Your task to perform on an android device: Go to battery settings Image 0: 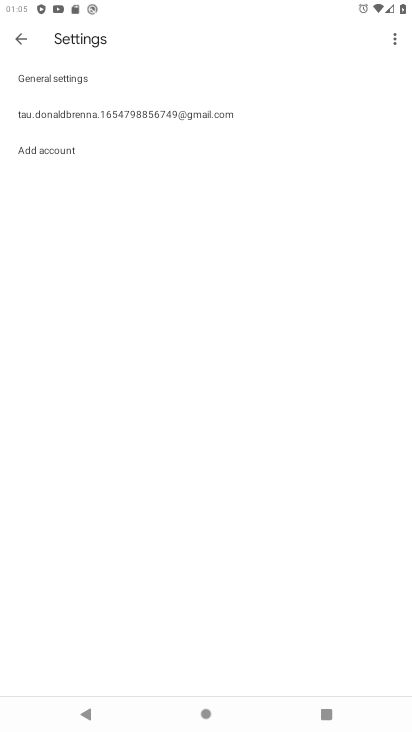
Step 0: press home button
Your task to perform on an android device: Go to battery settings Image 1: 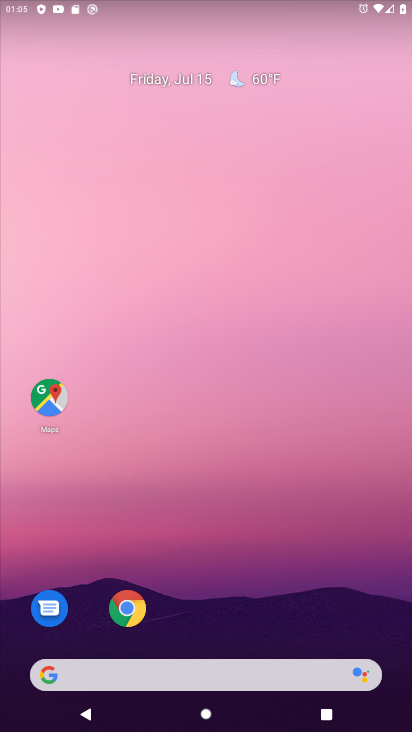
Step 1: drag from (378, 623) to (349, 65)
Your task to perform on an android device: Go to battery settings Image 2: 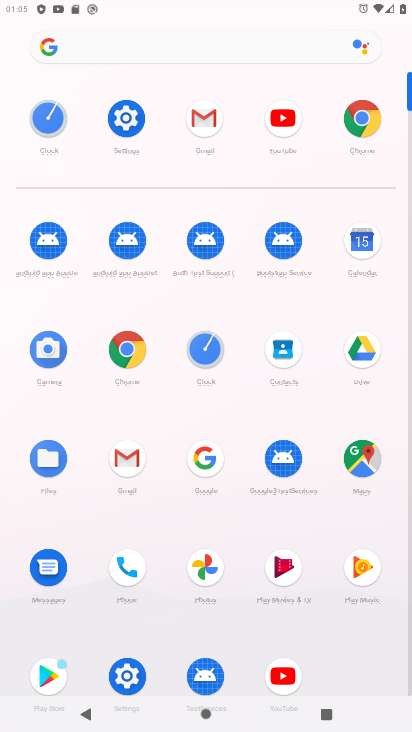
Step 2: click (130, 661)
Your task to perform on an android device: Go to battery settings Image 3: 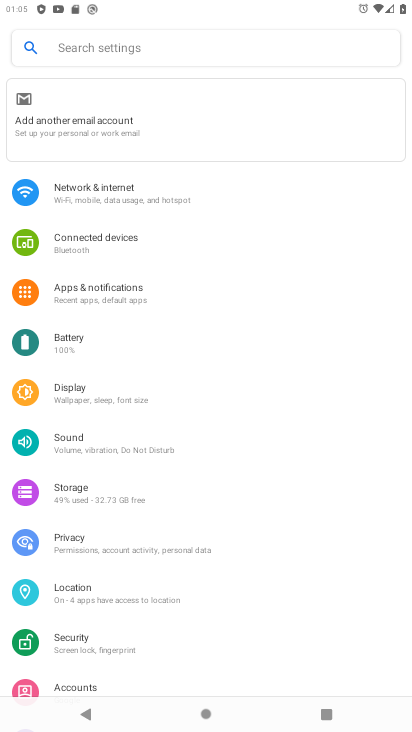
Step 3: click (94, 336)
Your task to perform on an android device: Go to battery settings Image 4: 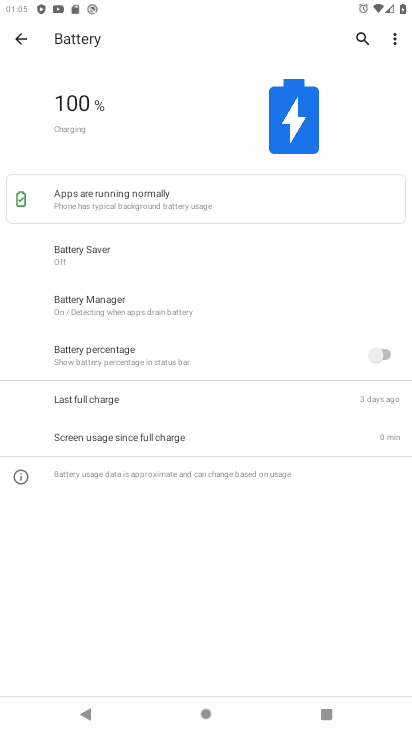
Step 4: task complete